Your task to perform on an android device: turn off sleep mode Image 0: 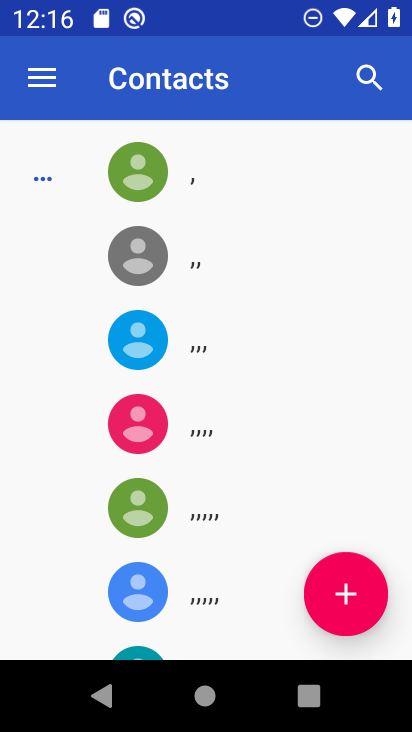
Step 0: press home button
Your task to perform on an android device: turn off sleep mode Image 1: 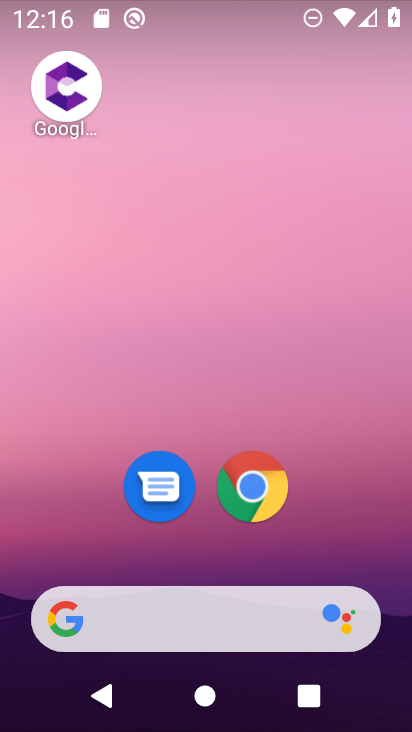
Step 1: drag from (35, 495) to (189, 129)
Your task to perform on an android device: turn off sleep mode Image 2: 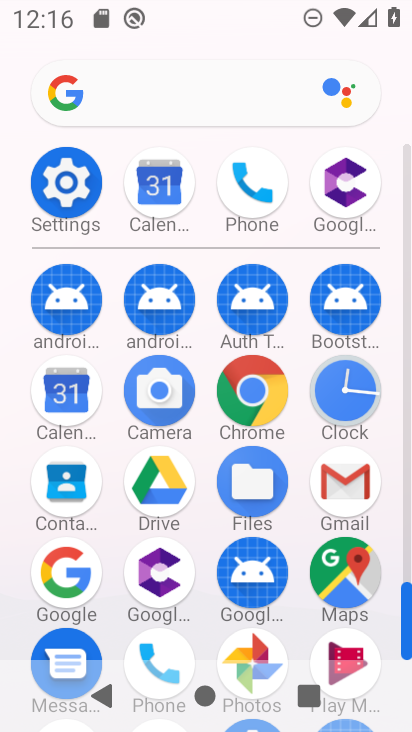
Step 2: click (82, 196)
Your task to perform on an android device: turn off sleep mode Image 3: 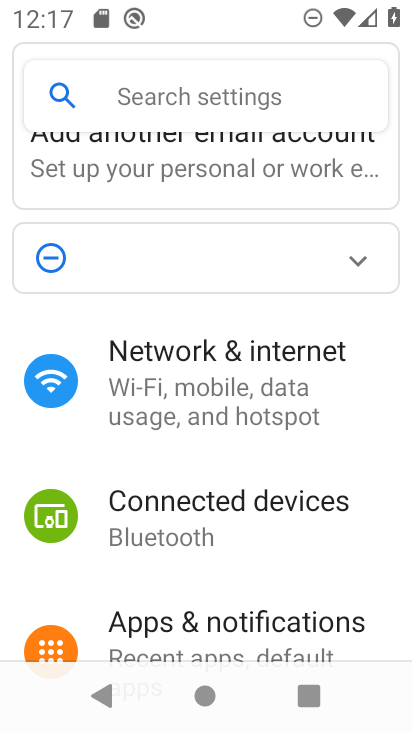
Step 3: task complete